Your task to perform on an android device: star an email in the gmail app Image 0: 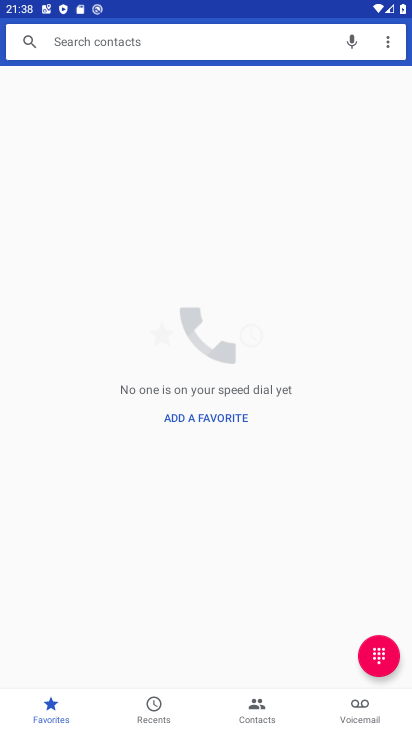
Step 0: press home button
Your task to perform on an android device: star an email in the gmail app Image 1: 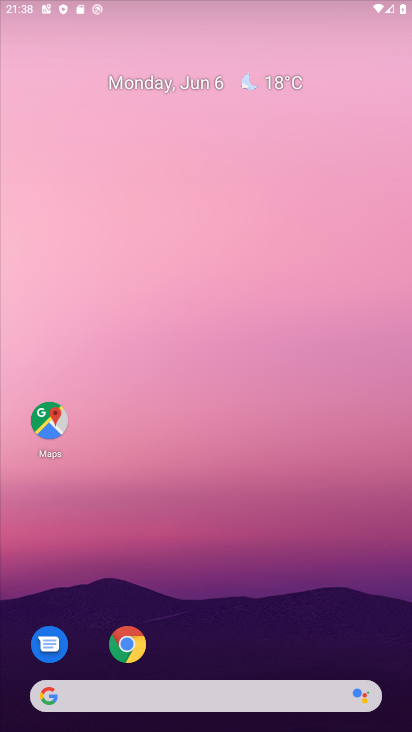
Step 1: drag from (311, 623) to (223, 151)
Your task to perform on an android device: star an email in the gmail app Image 2: 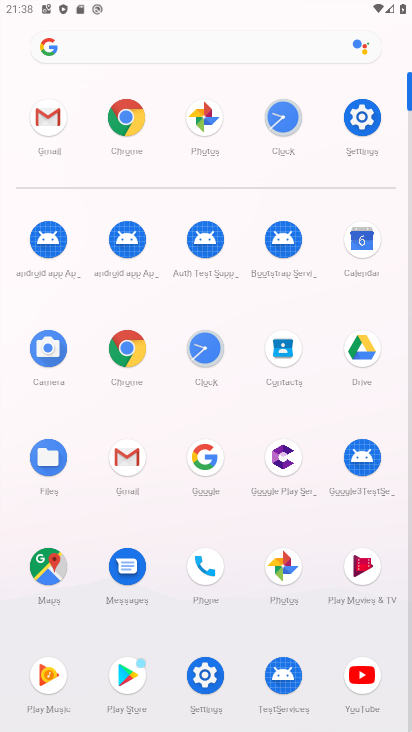
Step 2: click (132, 465)
Your task to perform on an android device: star an email in the gmail app Image 3: 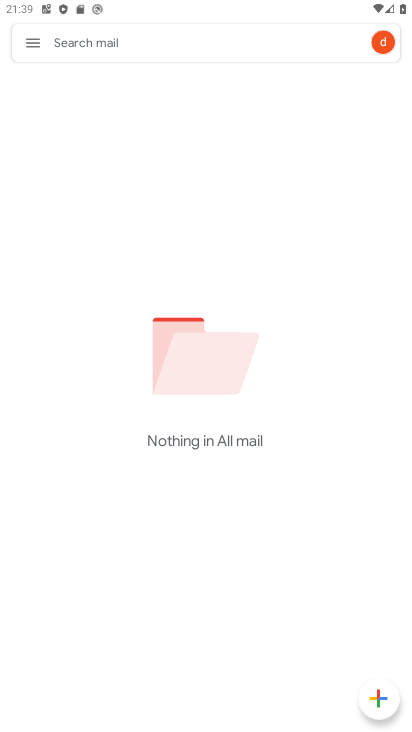
Step 3: click (39, 38)
Your task to perform on an android device: star an email in the gmail app Image 4: 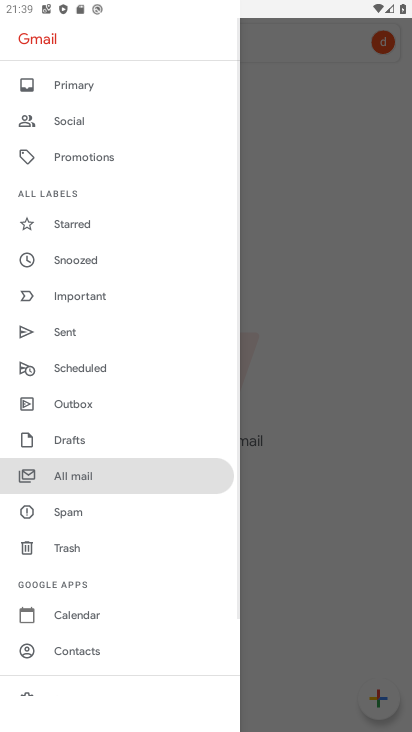
Step 4: click (98, 227)
Your task to perform on an android device: star an email in the gmail app Image 5: 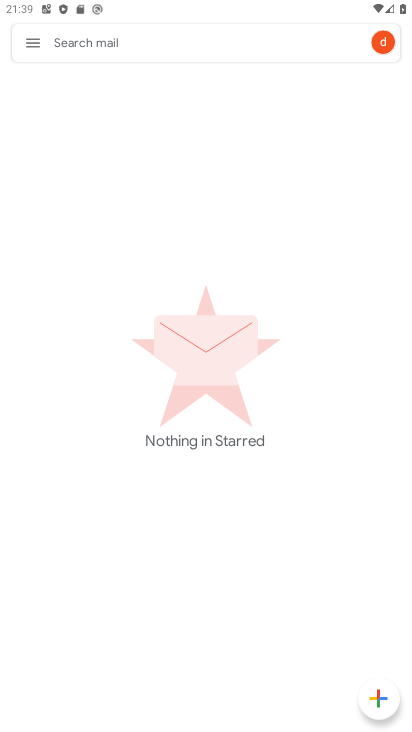
Step 5: task complete